Your task to perform on an android device: turn off airplane mode Image 0: 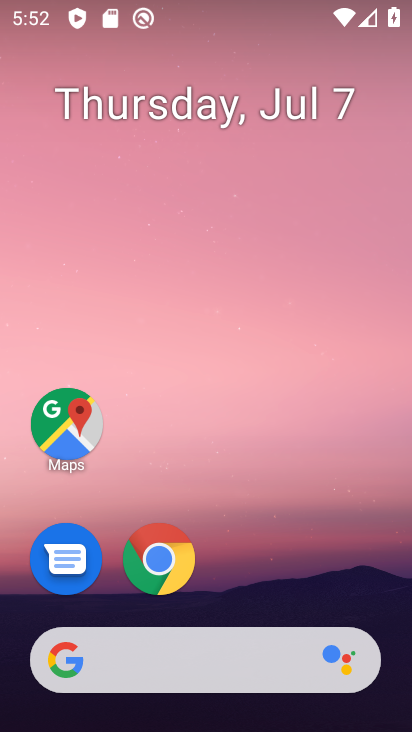
Step 0: drag from (304, 570) to (330, 278)
Your task to perform on an android device: turn off airplane mode Image 1: 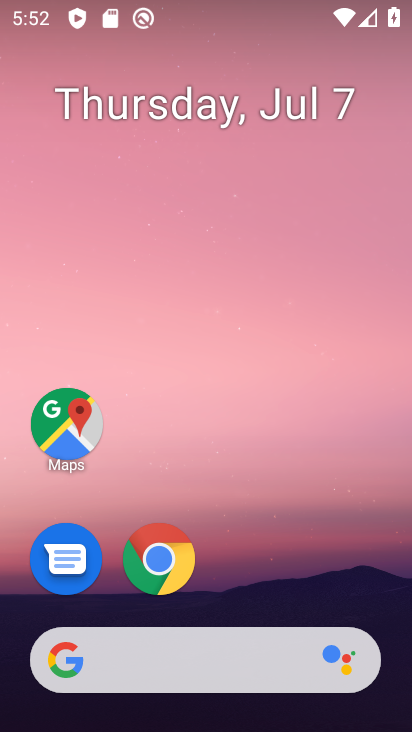
Step 1: drag from (274, 611) to (294, 46)
Your task to perform on an android device: turn off airplane mode Image 2: 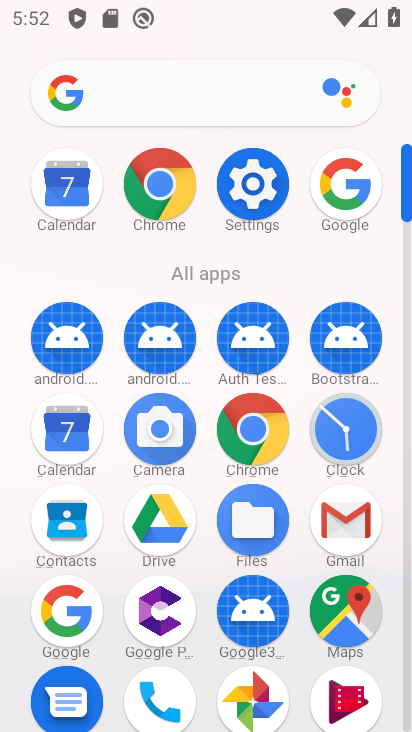
Step 2: click (265, 214)
Your task to perform on an android device: turn off airplane mode Image 3: 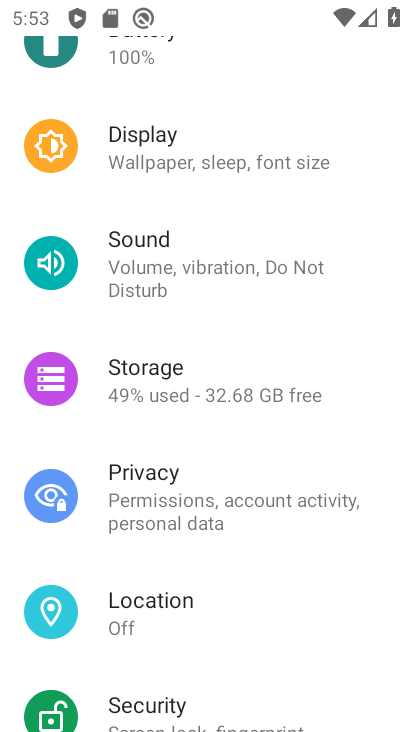
Step 3: drag from (243, 572) to (276, 305)
Your task to perform on an android device: turn off airplane mode Image 4: 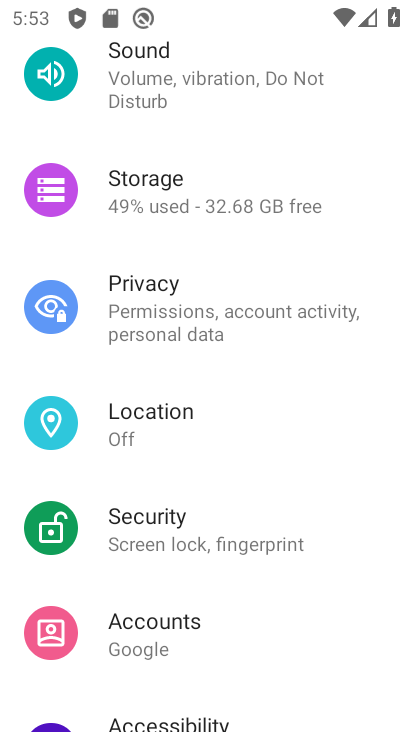
Step 4: drag from (272, 214) to (264, 452)
Your task to perform on an android device: turn off airplane mode Image 5: 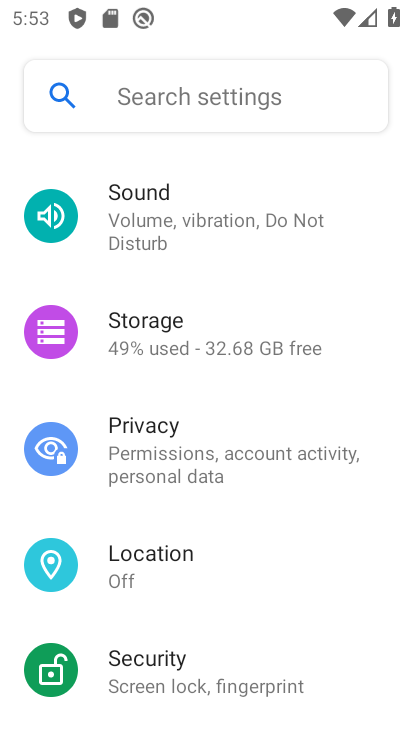
Step 5: click (223, 249)
Your task to perform on an android device: turn off airplane mode Image 6: 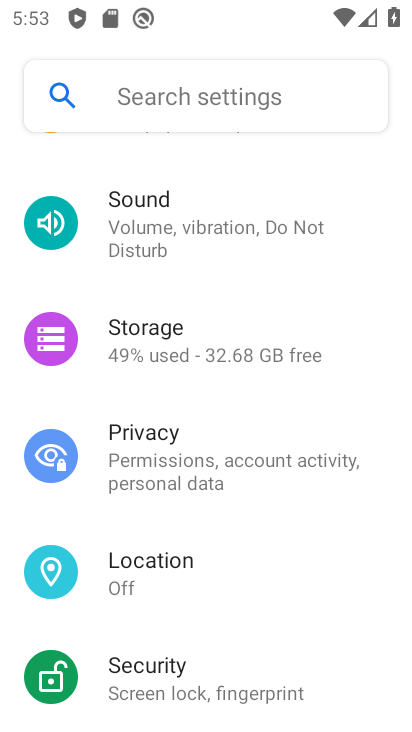
Step 6: drag from (224, 224) to (234, 680)
Your task to perform on an android device: turn off airplane mode Image 7: 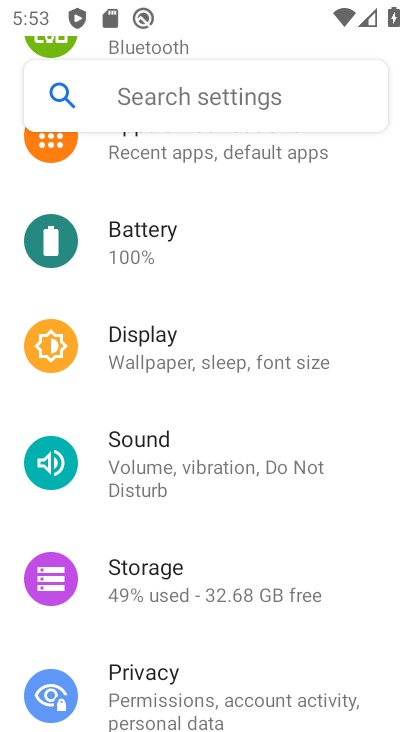
Step 7: drag from (232, 356) to (259, 714)
Your task to perform on an android device: turn off airplane mode Image 8: 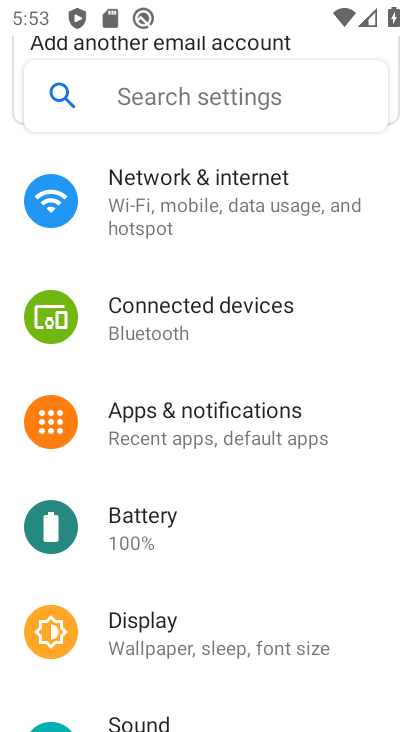
Step 8: drag from (259, 252) to (274, 534)
Your task to perform on an android device: turn off airplane mode Image 9: 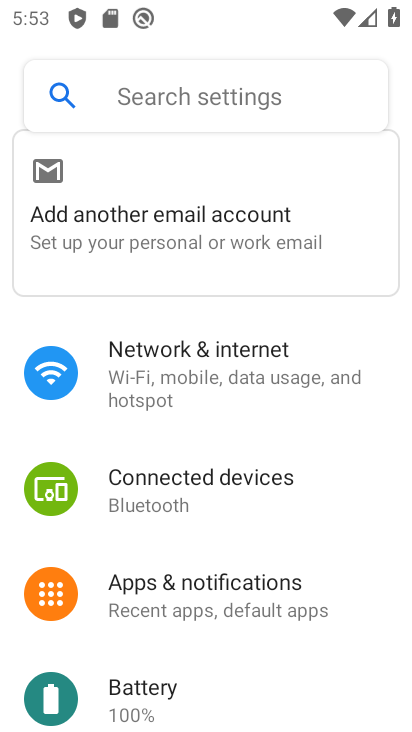
Step 9: click (259, 377)
Your task to perform on an android device: turn off airplane mode Image 10: 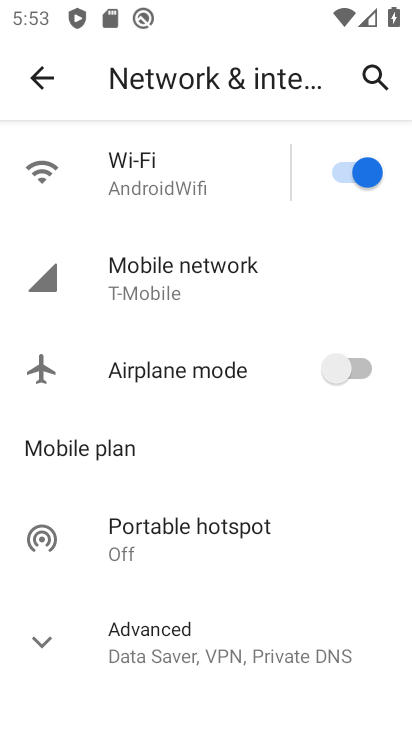
Step 10: task complete